Your task to perform on an android device: Is it going to rain this weekend? Image 0: 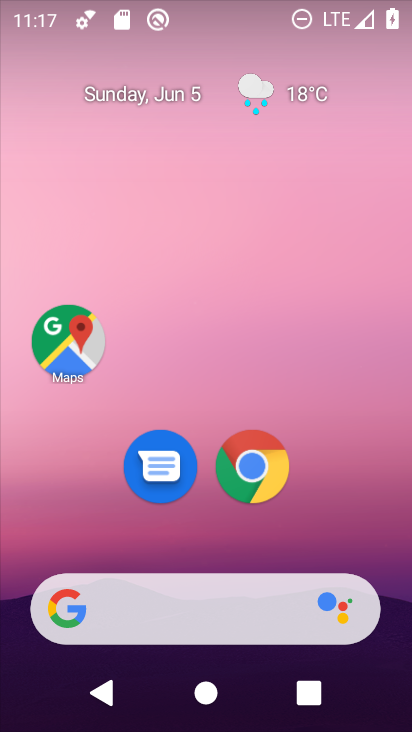
Step 0: drag from (335, 519) to (215, 23)
Your task to perform on an android device: Is it going to rain this weekend? Image 1: 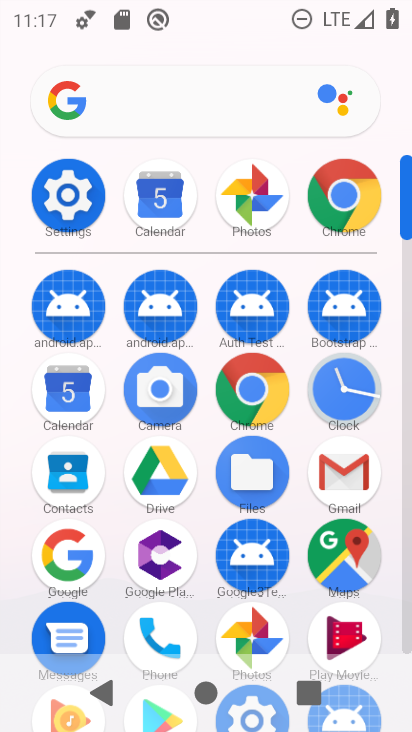
Step 1: drag from (0, 576) to (10, 286)
Your task to perform on an android device: Is it going to rain this weekend? Image 2: 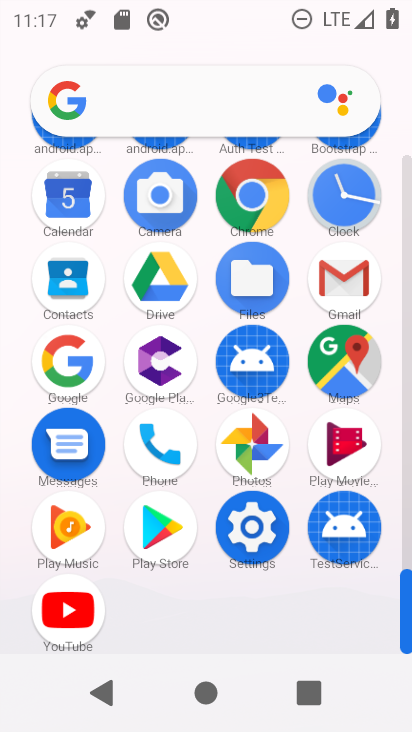
Step 2: click (254, 187)
Your task to perform on an android device: Is it going to rain this weekend? Image 3: 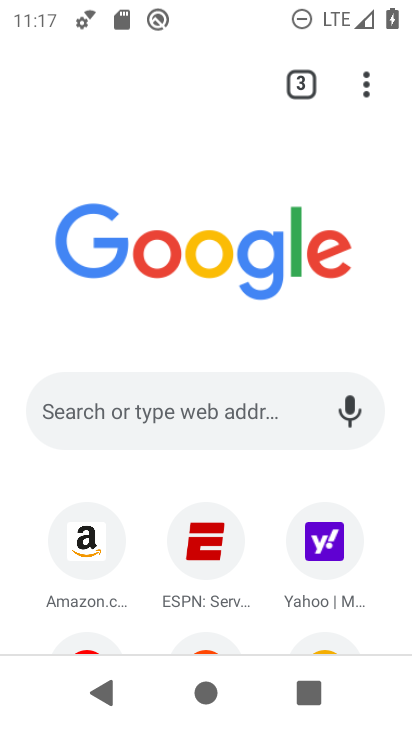
Step 3: click (154, 396)
Your task to perform on an android device: Is it going to rain this weekend? Image 4: 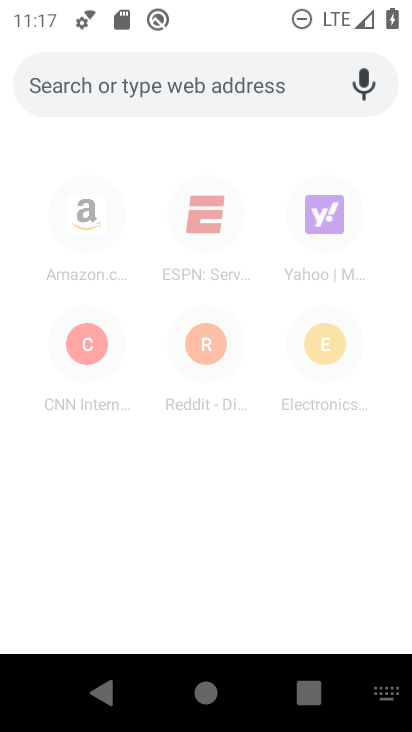
Step 4: type "Is it going to rain this weekend?"
Your task to perform on an android device: Is it going to rain this weekend? Image 5: 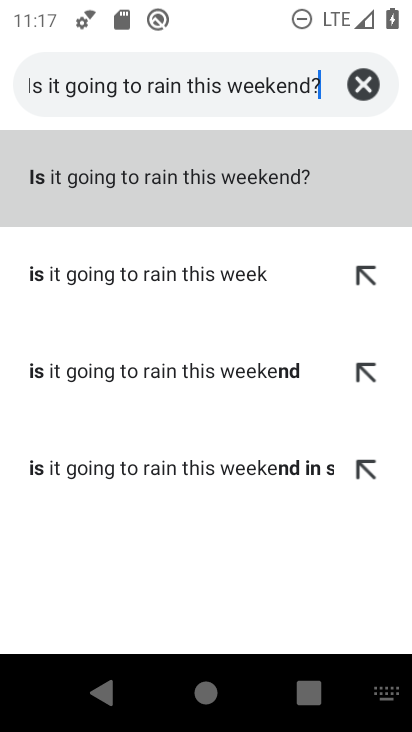
Step 5: type ""
Your task to perform on an android device: Is it going to rain this weekend? Image 6: 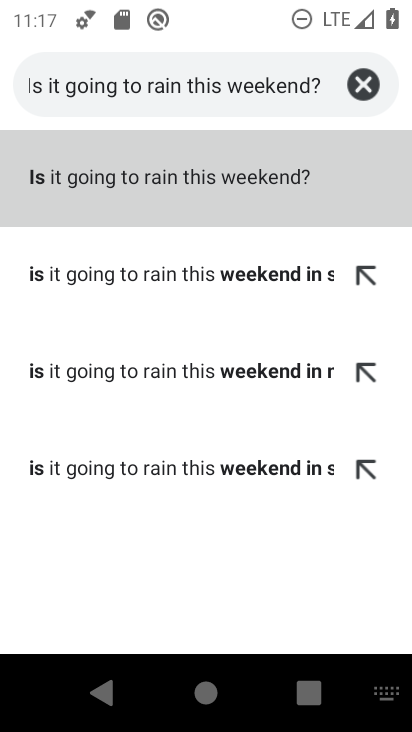
Step 6: click (279, 187)
Your task to perform on an android device: Is it going to rain this weekend? Image 7: 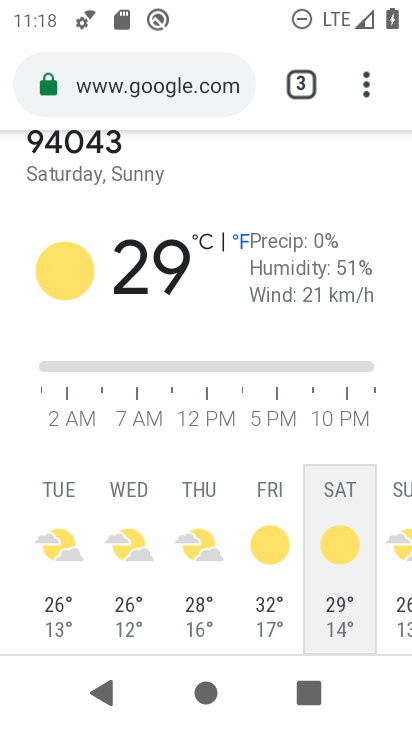
Step 7: task complete